Your task to perform on an android device: Go to internet settings Image 0: 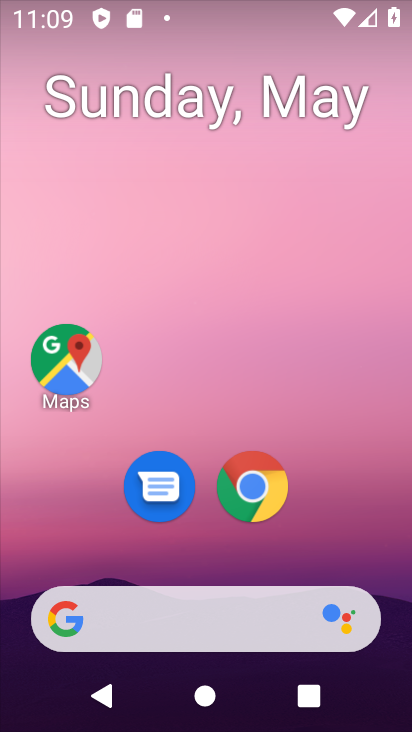
Step 0: drag from (295, 459) to (278, 68)
Your task to perform on an android device: Go to internet settings Image 1: 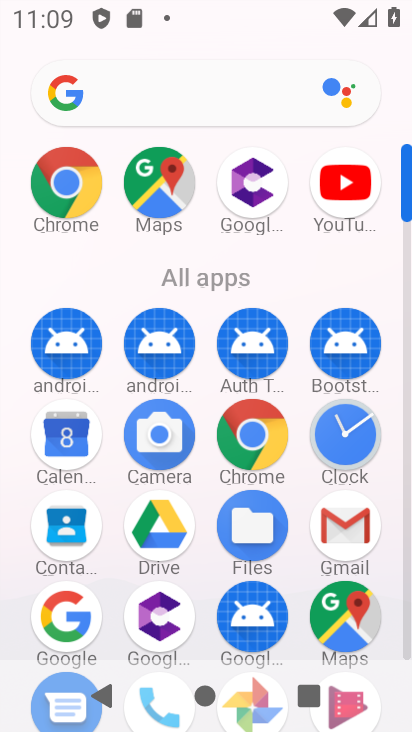
Step 1: drag from (243, 551) to (268, 143)
Your task to perform on an android device: Go to internet settings Image 2: 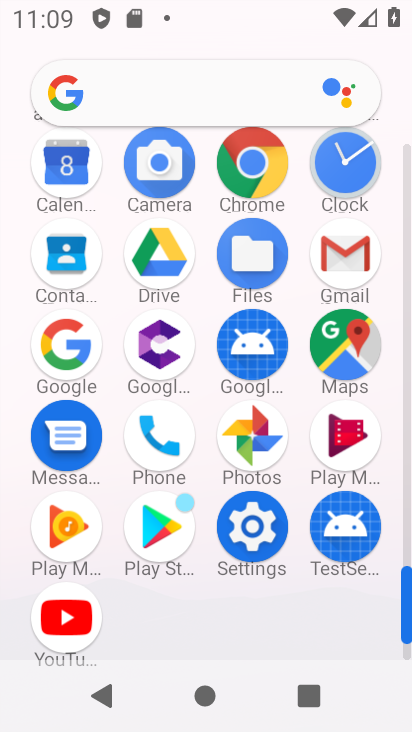
Step 2: click (272, 529)
Your task to perform on an android device: Go to internet settings Image 3: 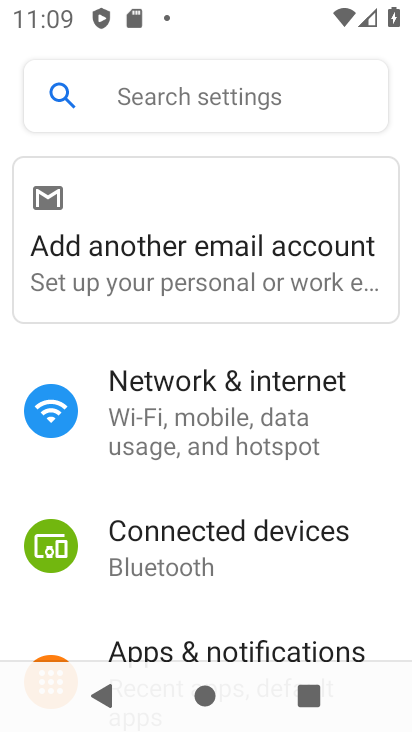
Step 3: click (246, 430)
Your task to perform on an android device: Go to internet settings Image 4: 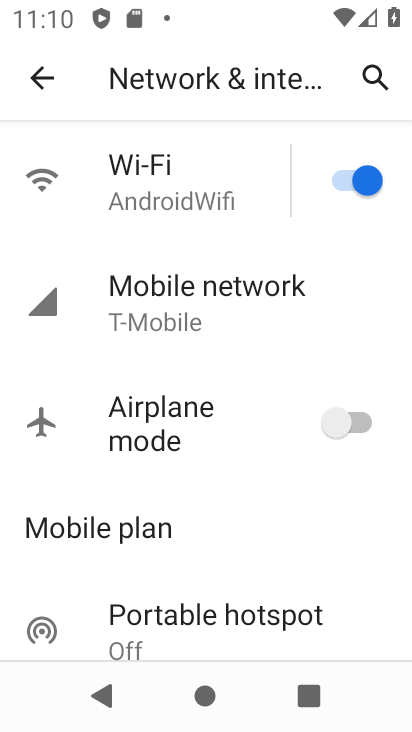
Step 4: click (232, 292)
Your task to perform on an android device: Go to internet settings Image 5: 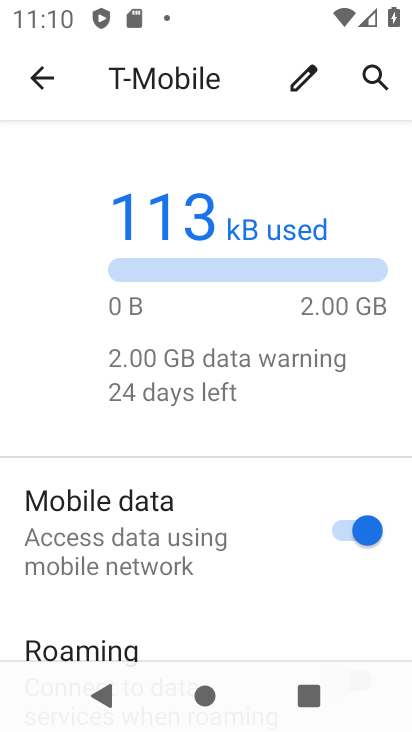
Step 5: task complete